Your task to perform on an android device: Open calendar and show me the first week of next month Image 0: 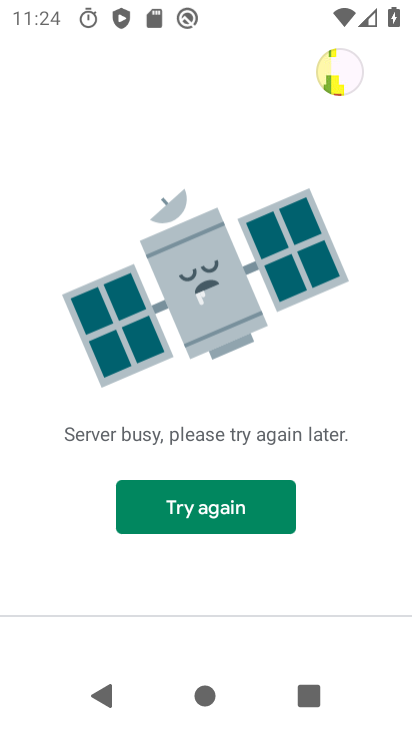
Step 0: press home button
Your task to perform on an android device: Open calendar and show me the first week of next month Image 1: 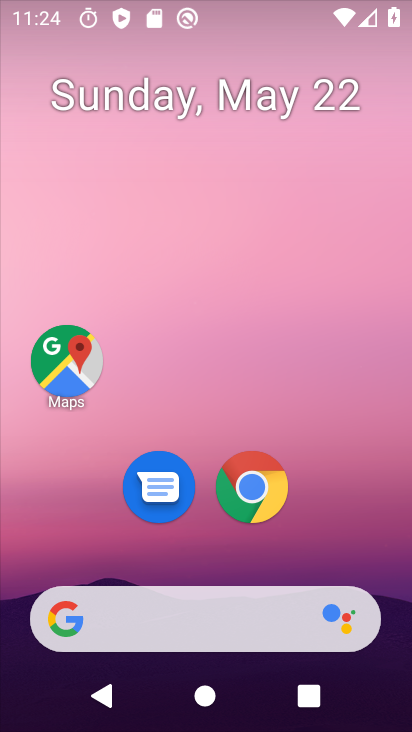
Step 1: drag from (357, 535) to (338, 173)
Your task to perform on an android device: Open calendar and show me the first week of next month Image 2: 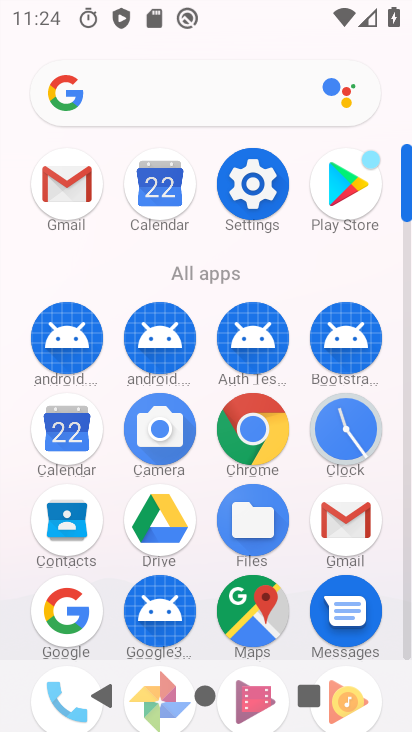
Step 2: click (63, 439)
Your task to perform on an android device: Open calendar and show me the first week of next month Image 3: 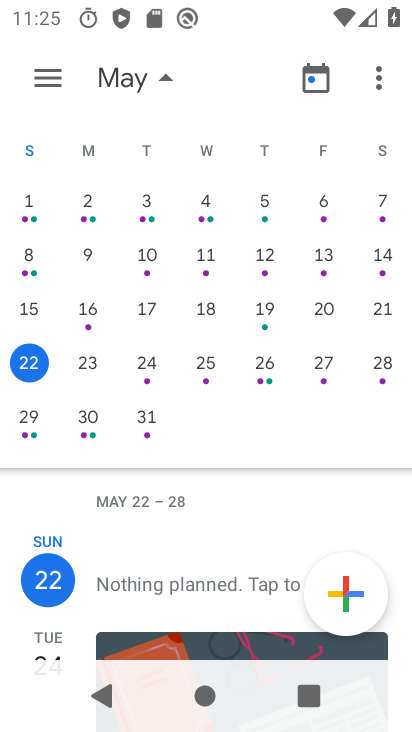
Step 3: task complete